Your task to perform on an android device: Add "razer blade" to the cart on bestbuy, then select checkout. Image 0: 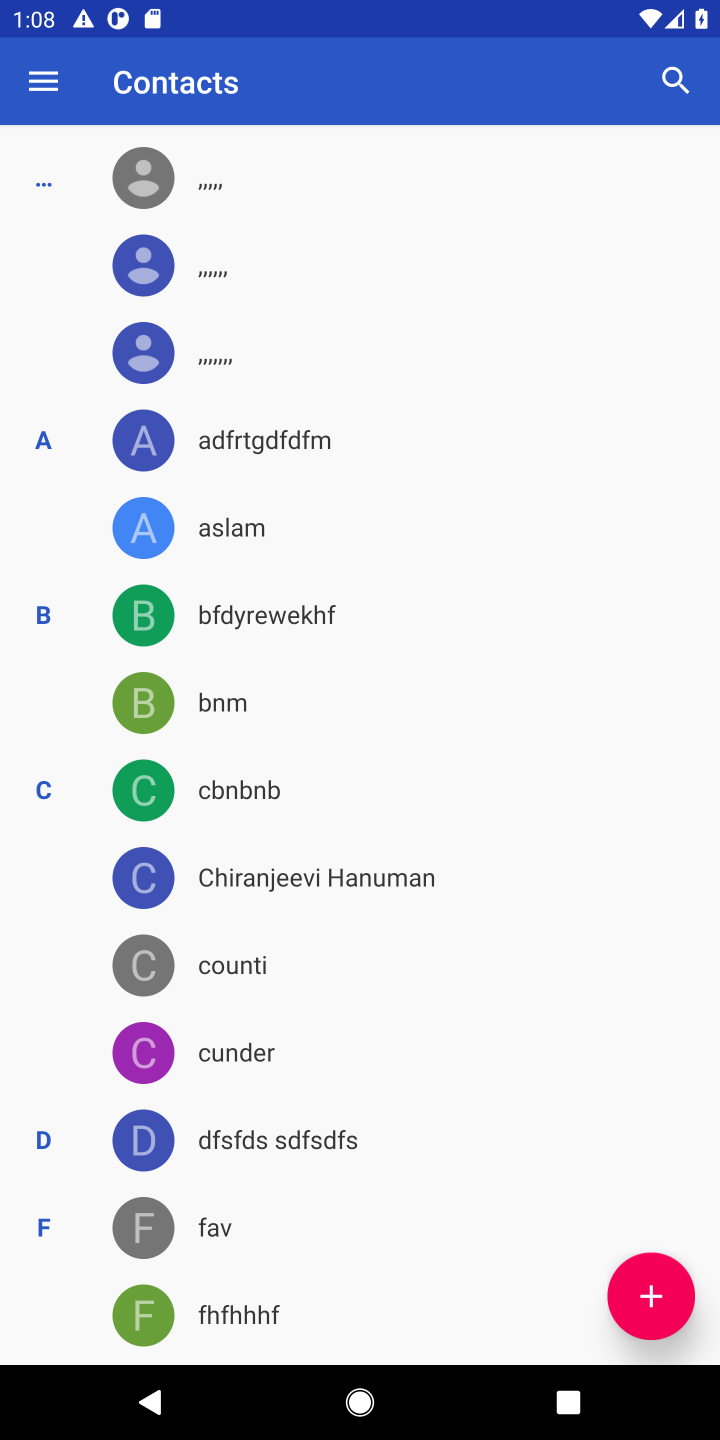
Step 0: press home button
Your task to perform on an android device: Add "razer blade" to the cart on bestbuy, then select checkout. Image 1: 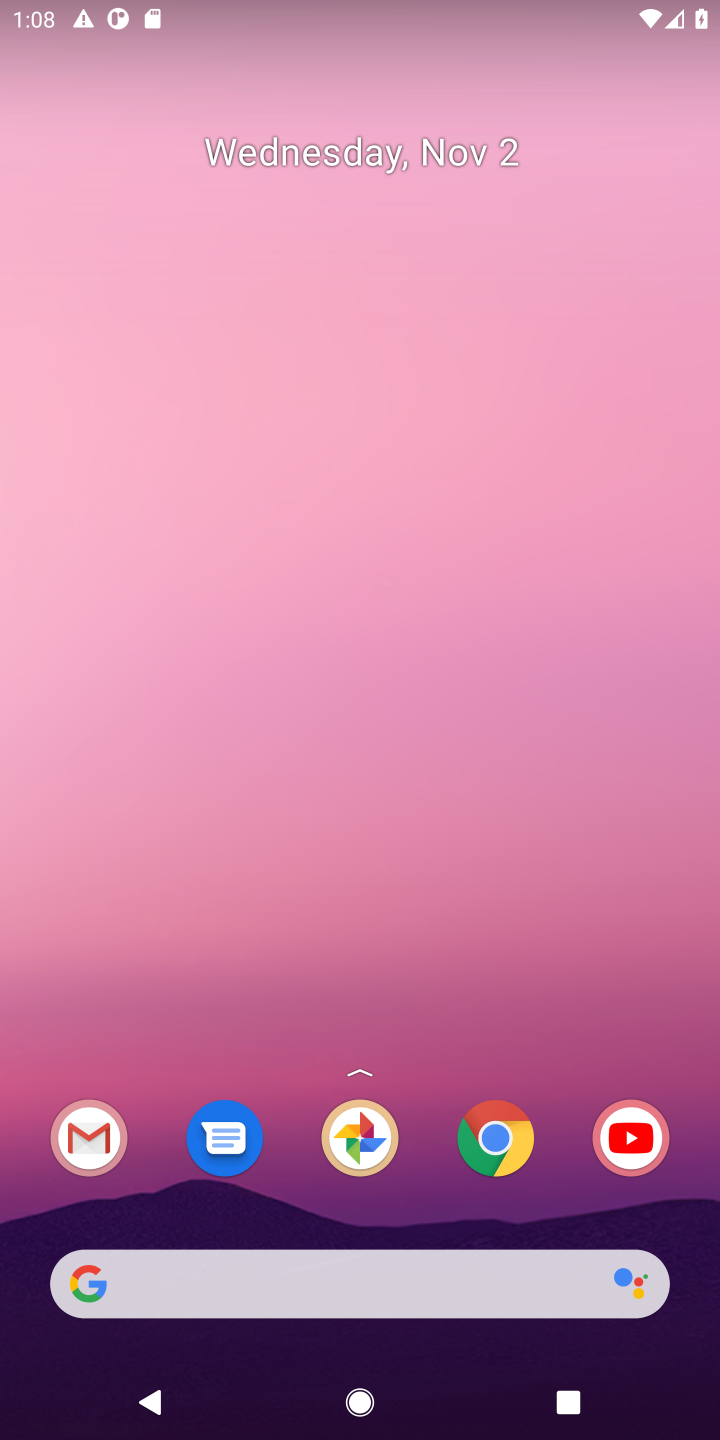
Step 1: click (489, 1111)
Your task to perform on an android device: Add "razer blade" to the cart on bestbuy, then select checkout. Image 2: 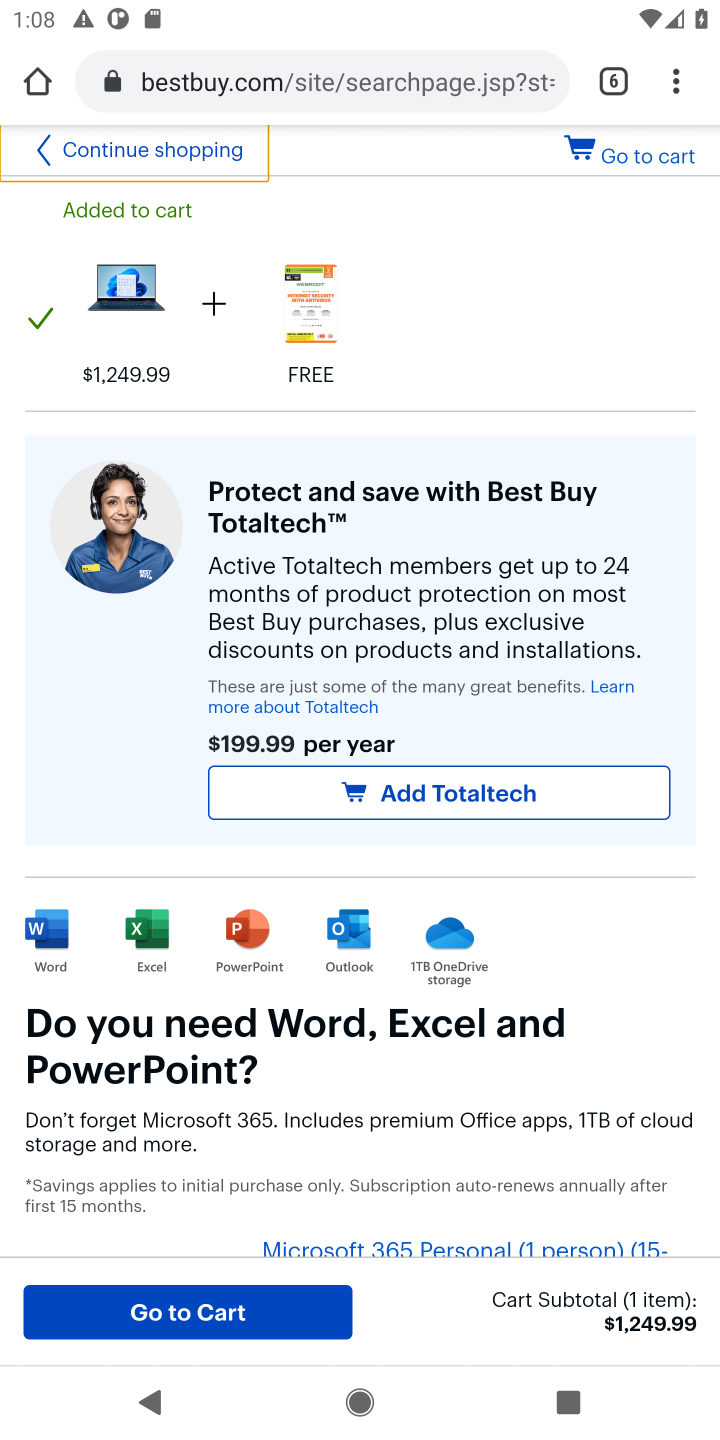
Step 2: click (200, 156)
Your task to perform on an android device: Add "razer blade" to the cart on bestbuy, then select checkout. Image 3: 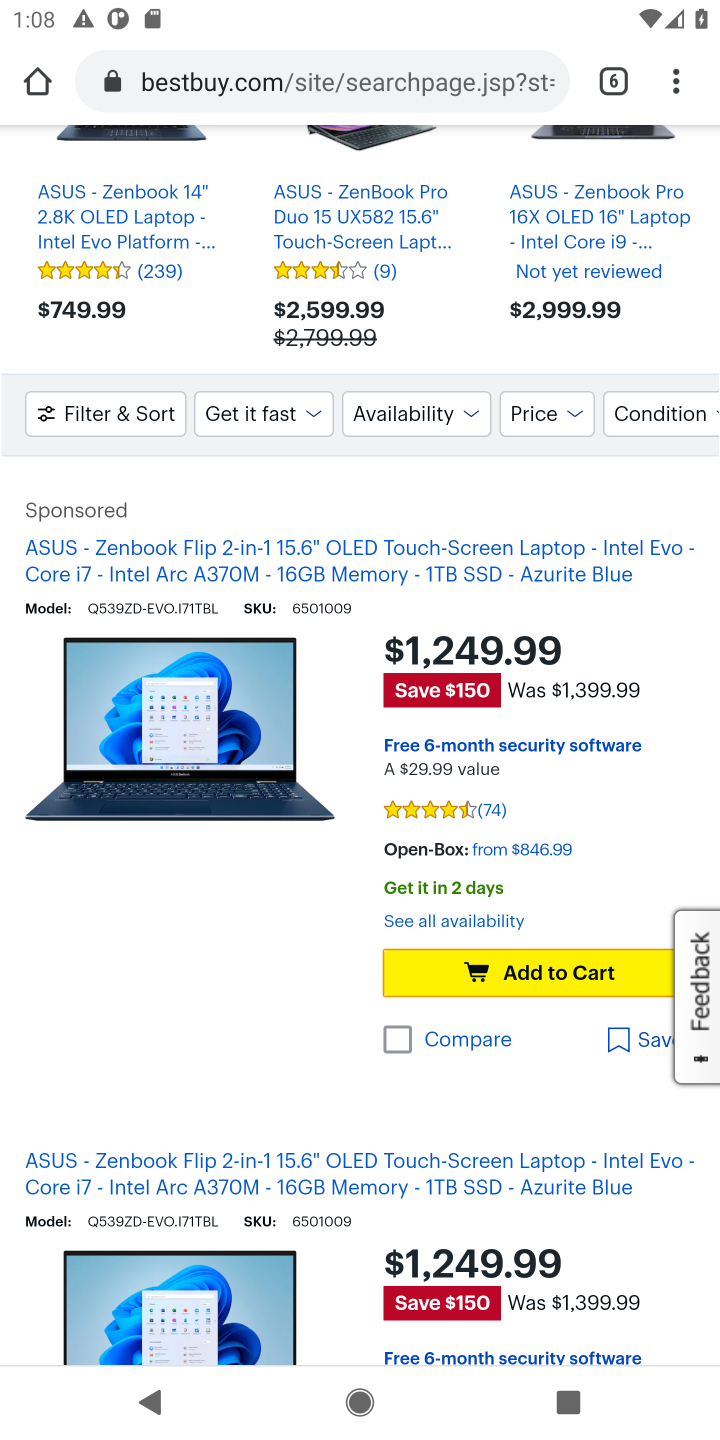
Step 3: drag from (443, 577) to (307, 1255)
Your task to perform on an android device: Add "razer blade" to the cart on bestbuy, then select checkout. Image 4: 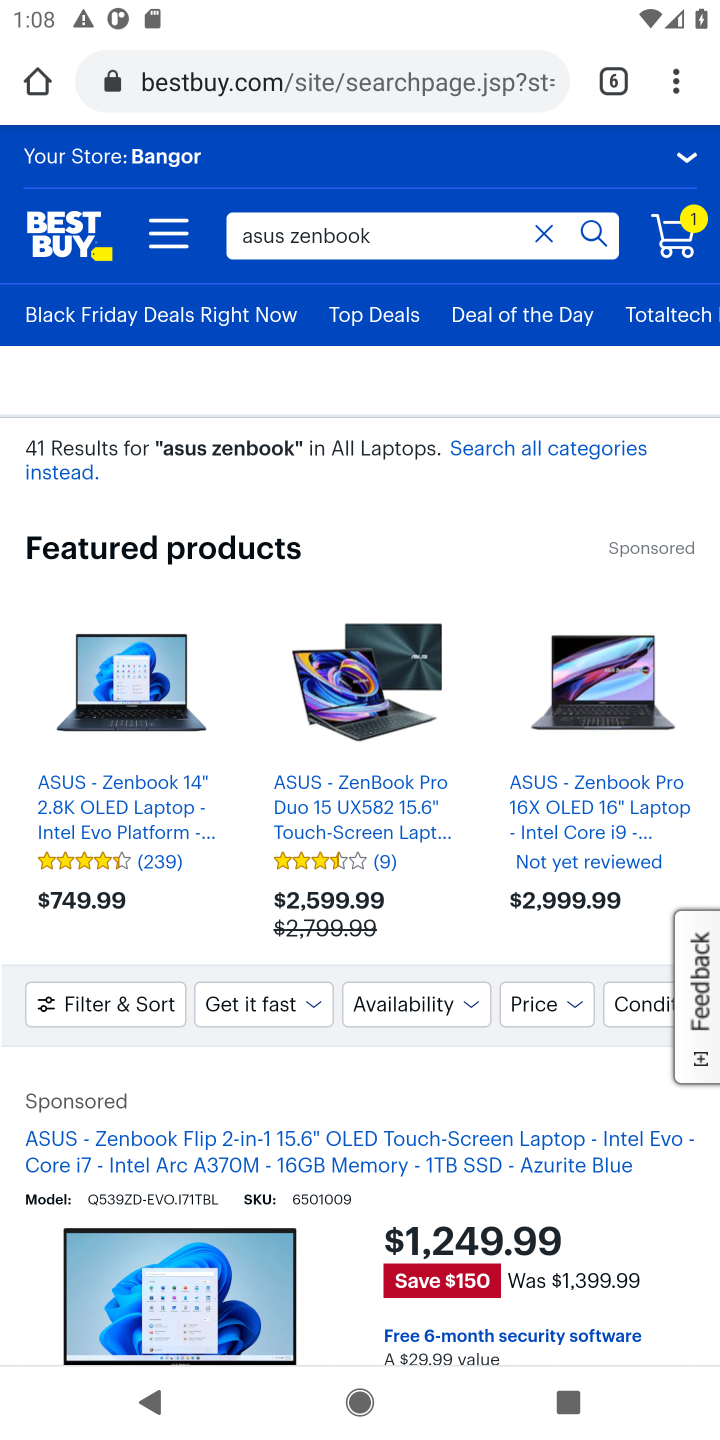
Step 4: click (549, 227)
Your task to perform on an android device: Add "razer blade" to the cart on bestbuy, then select checkout. Image 5: 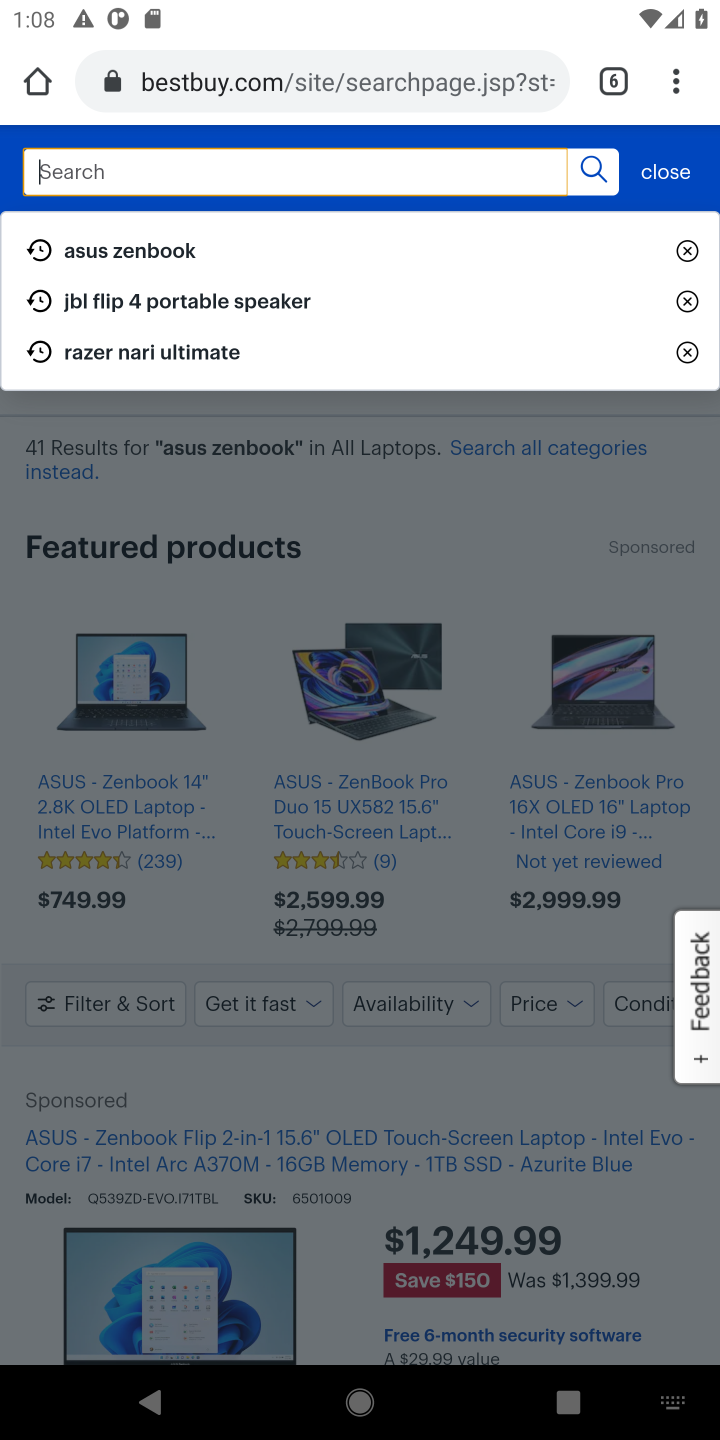
Step 5: type "razer blade"
Your task to perform on an android device: Add "razer blade" to the cart on bestbuy, then select checkout. Image 6: 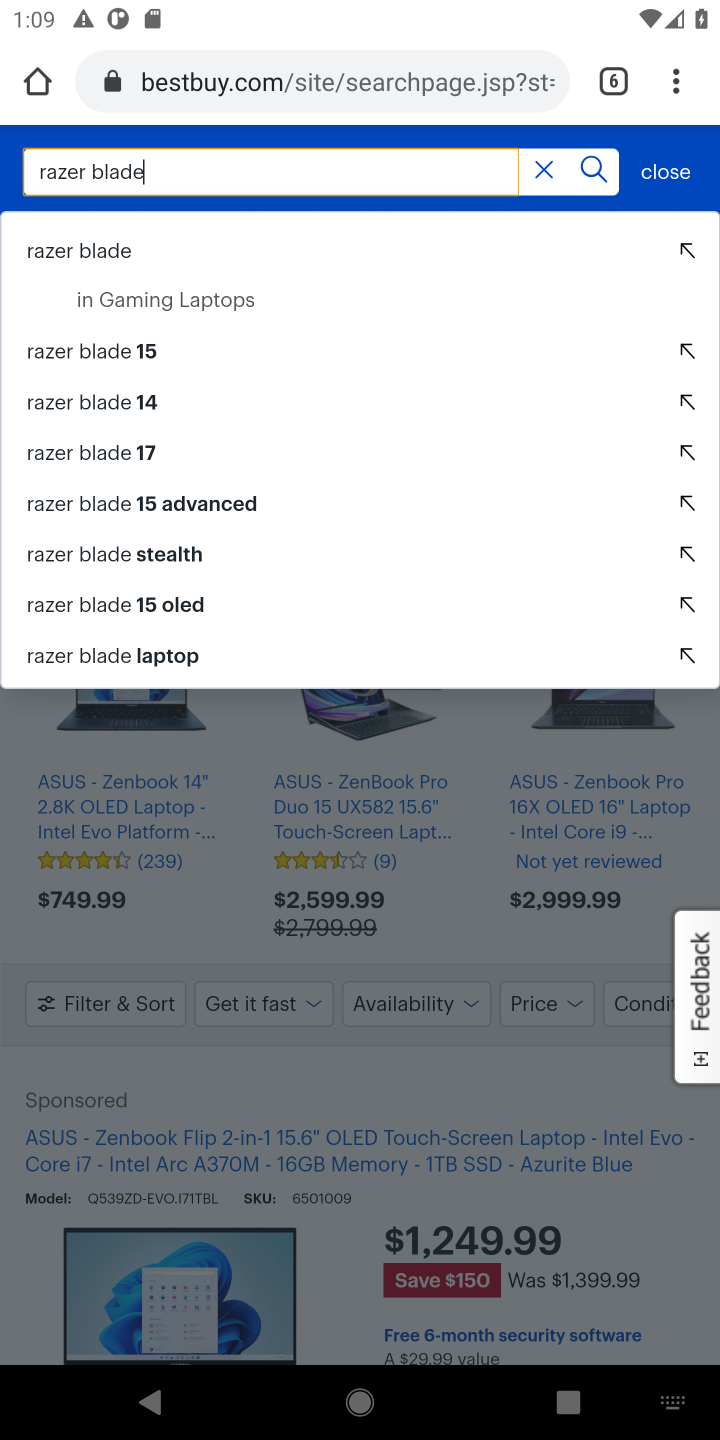
Step 6: click (85, 249)
Your task to perform on an android device: Add "razer blade" to the cart on bestbuy, then select checkout. Image 7: 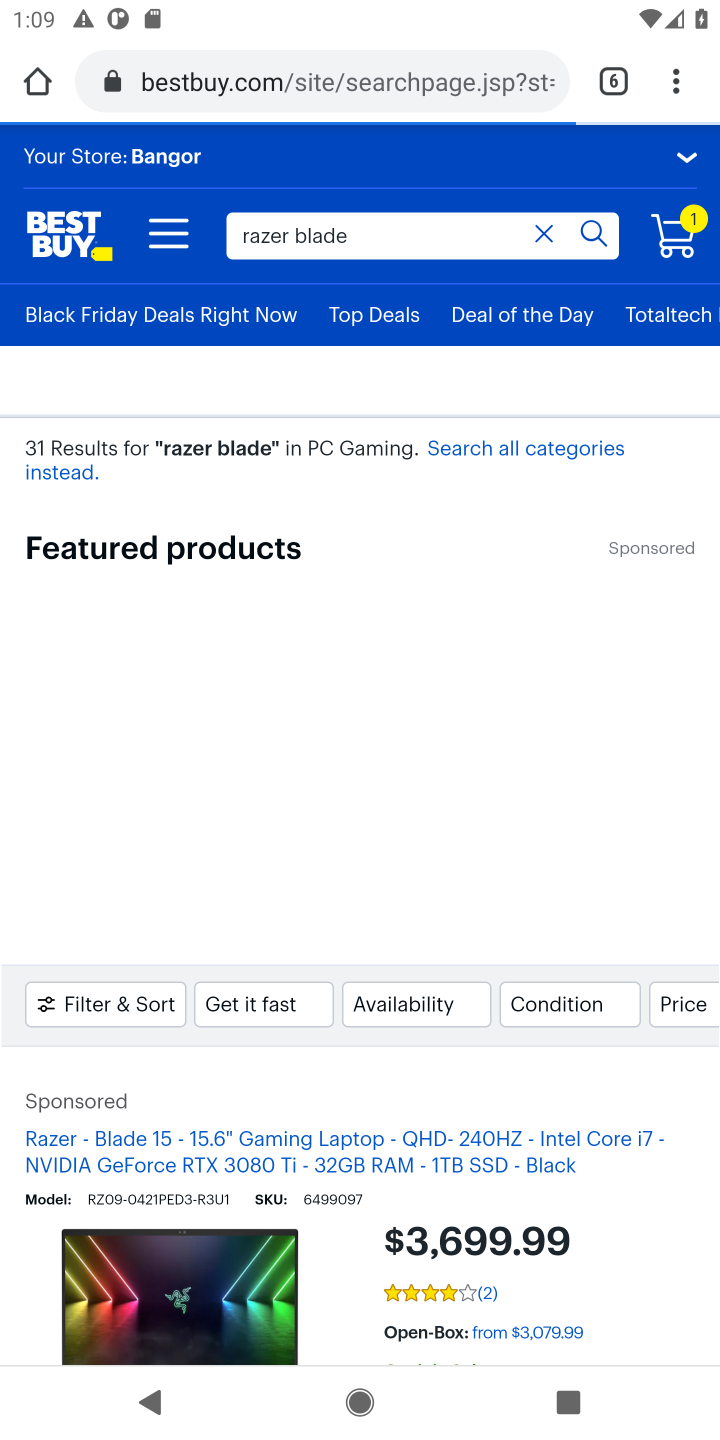
Step 7: drag from (495, 1271) to (514, 675)
Your task to perform on an android device: Add "razer blade" to the cart on bestbuy, then select checkout. Image 8: 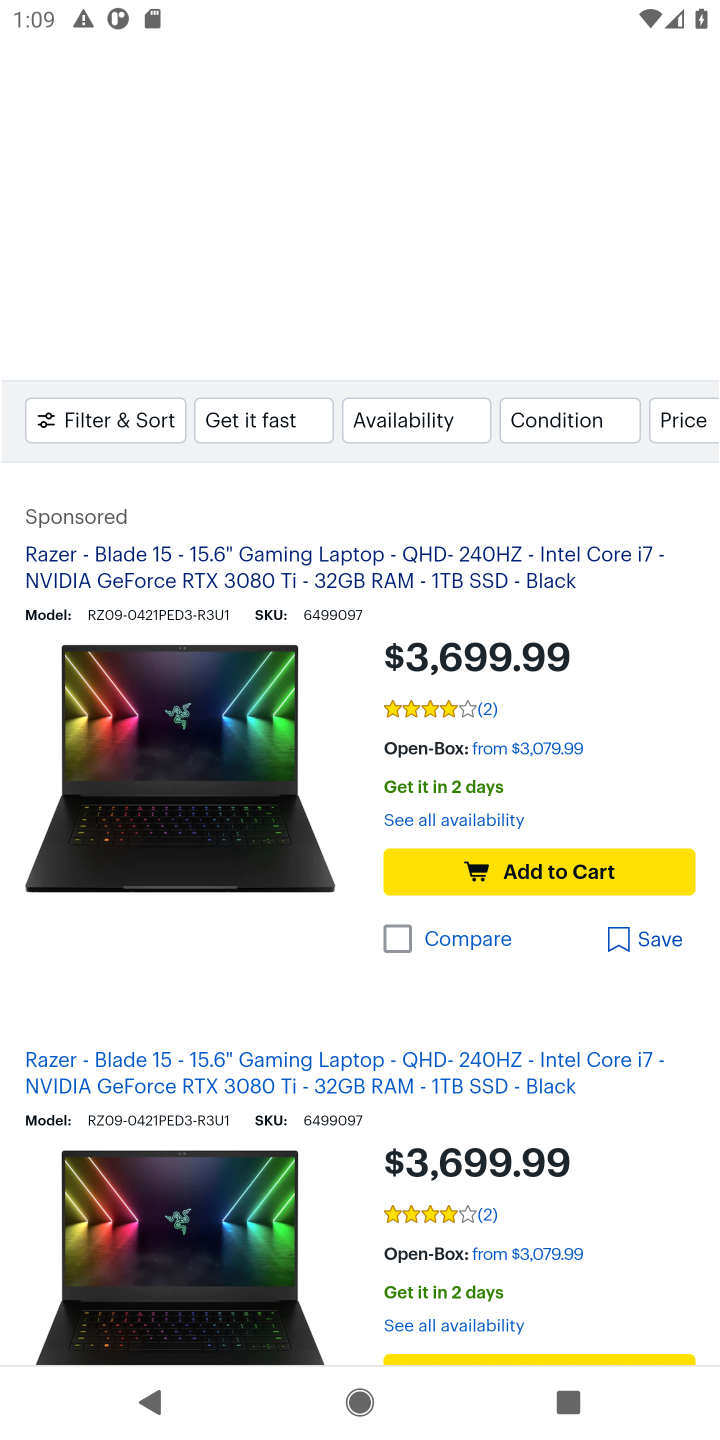
Step 8: click (559, 863)
Your task to perform on an android device: Add "razer blade" to the cart on bestbuy, then select checkout. Image 9: 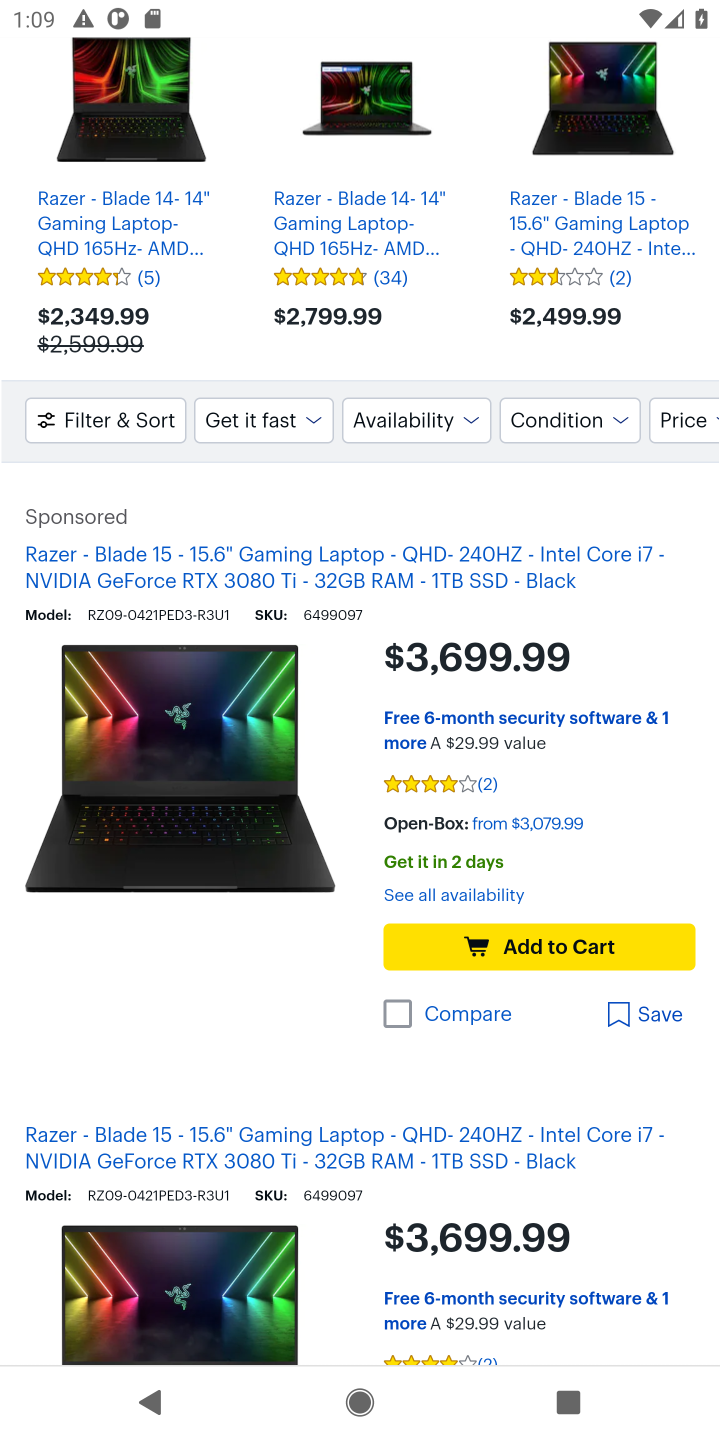
Step 9: click (576, 948)
Your task to perform on an android device: Add "razer blade" to the cart on bestbuy, then select checkout. Image 10: 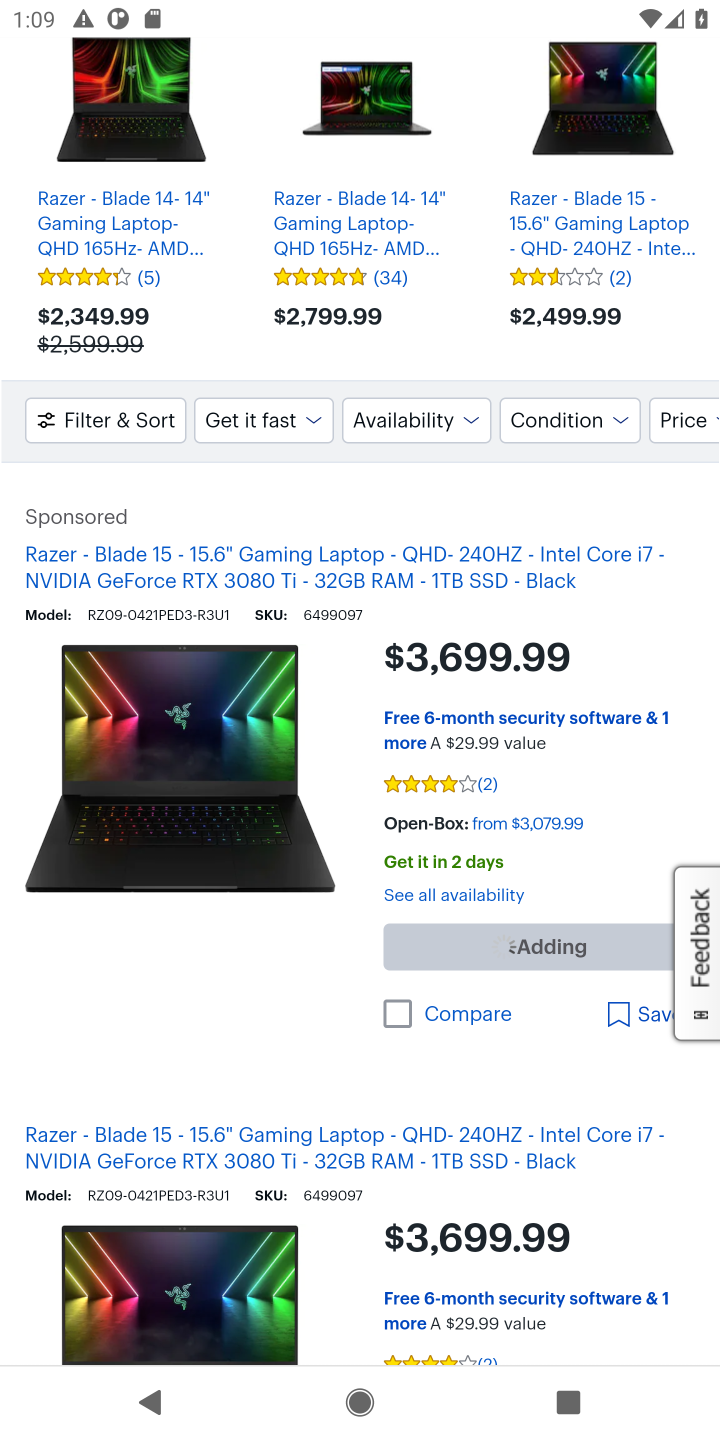
Step 10: task complete